Your task to perform on an android device: all mails in gmail Image 0: 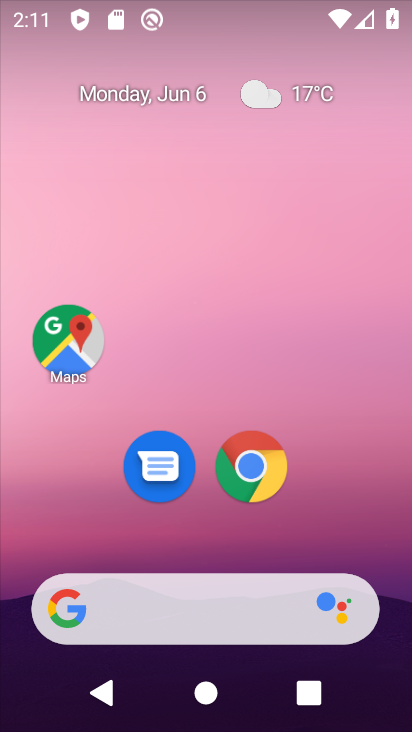
Step 0: drag from (387, 534) to (252, 177)
Your task to perform on an android device: all mails in gmail Image 1: 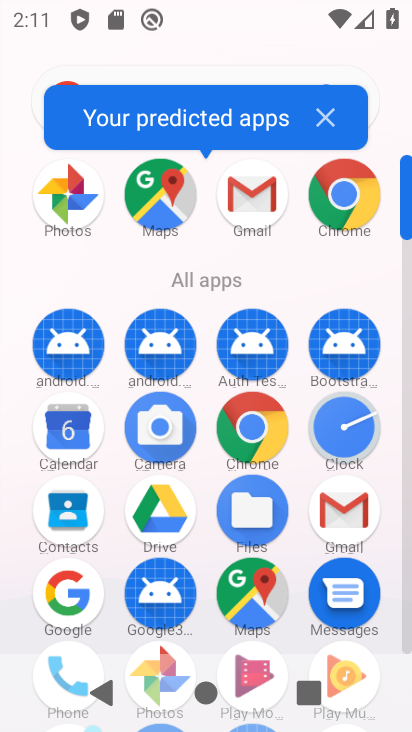
Step 1: click (283, 202)
Your task to perform on an android device: all mails in gmail Image 2: 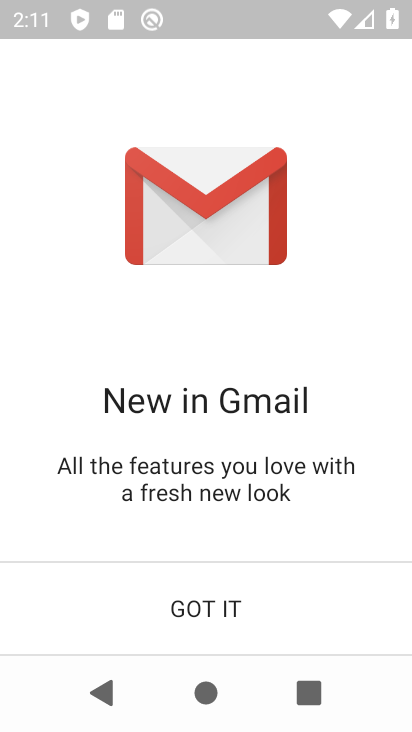
Step 2: click (212, 617)
Your task to perform on an android device: all mails in gmail Image 3: 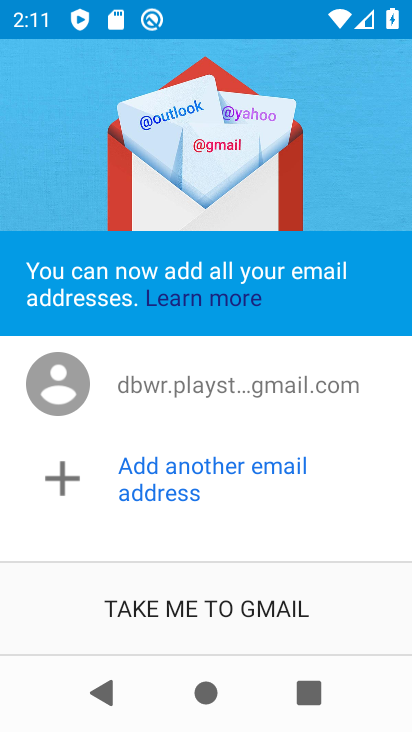
Step 3: click (212, 617)
Your task to perform on an android device: all mails in gmail Image 4: 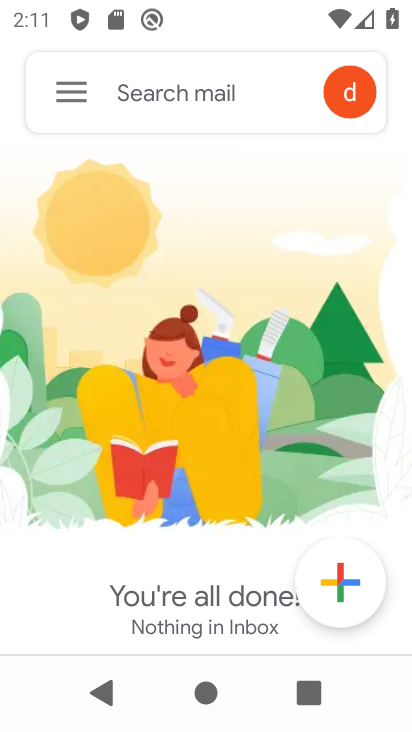
Step 4: click (68, 121)
Your task to perform on an android device: all mails in gmail Image 5: 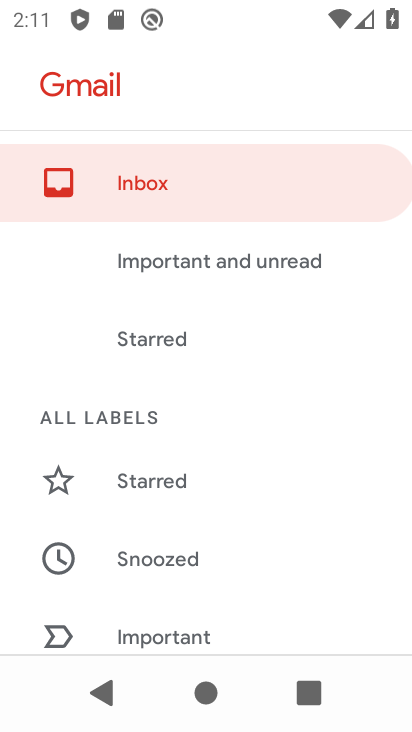
Step 5: drag from (142, 609) to (185, 173)
Your task to perform on an android device: all mails in gmail Image 6: 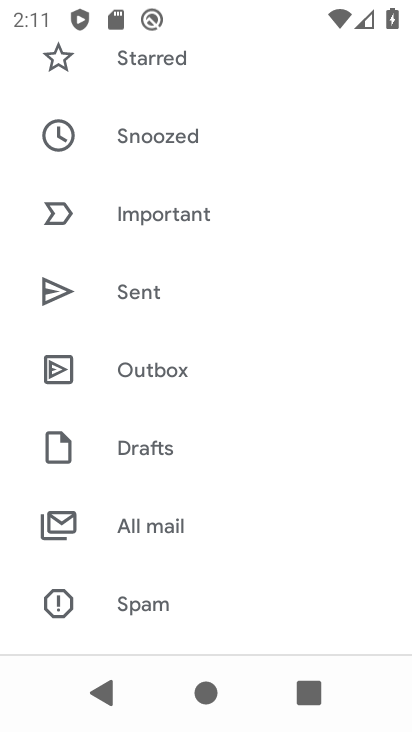
Step 6: click (176, 521)
Your task to perform on an android device: all mails in gmail Image 7: 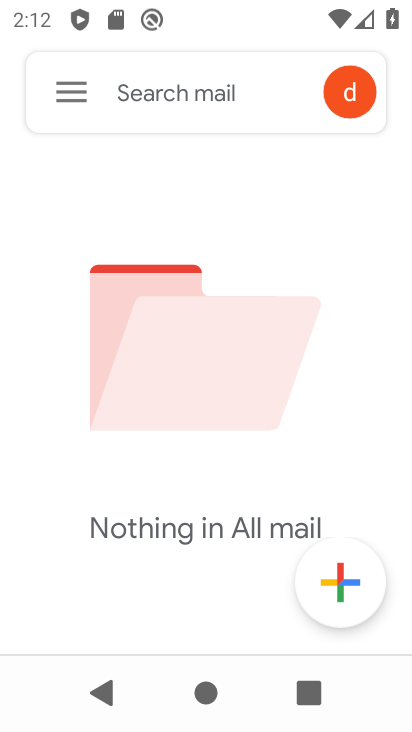
Step 7: task complete